Your task to perform on an android device: turn pop-ups on in chrome Image 0: 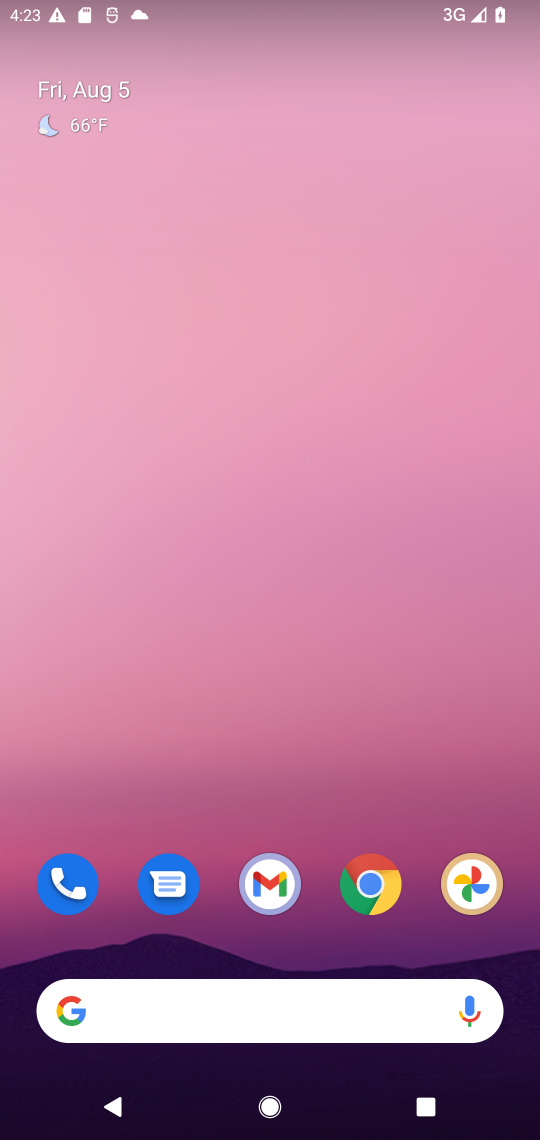
Step 0: drag from (442, 949) to (293, 18)
Your task to perform on an android device: turn pop-ups on in chrome Image 1: 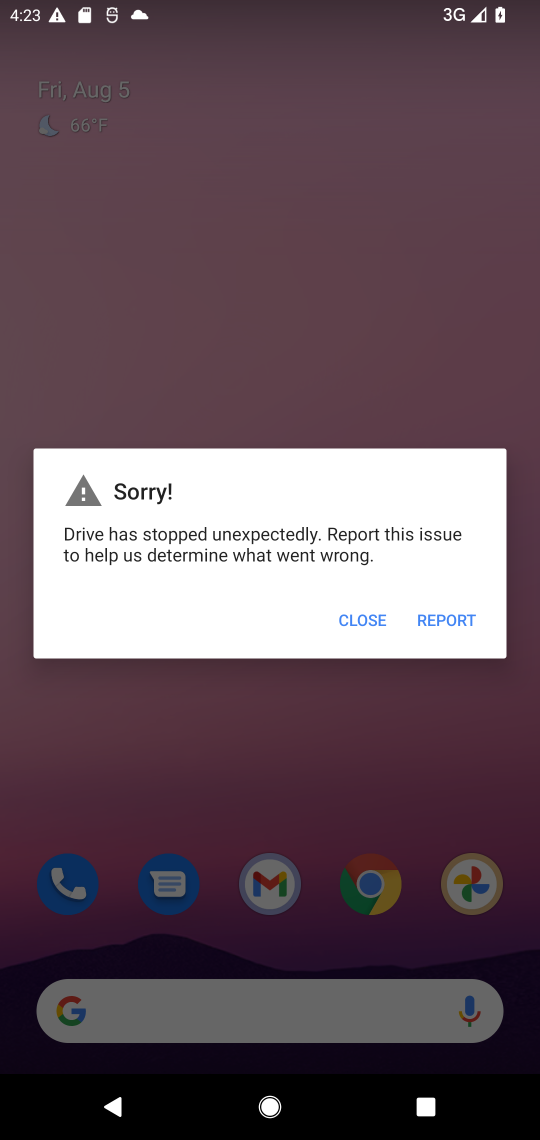
Step 1: click (340, 632)
Your task to perform on an android device: turn pop-ups on in chrome Image 2: 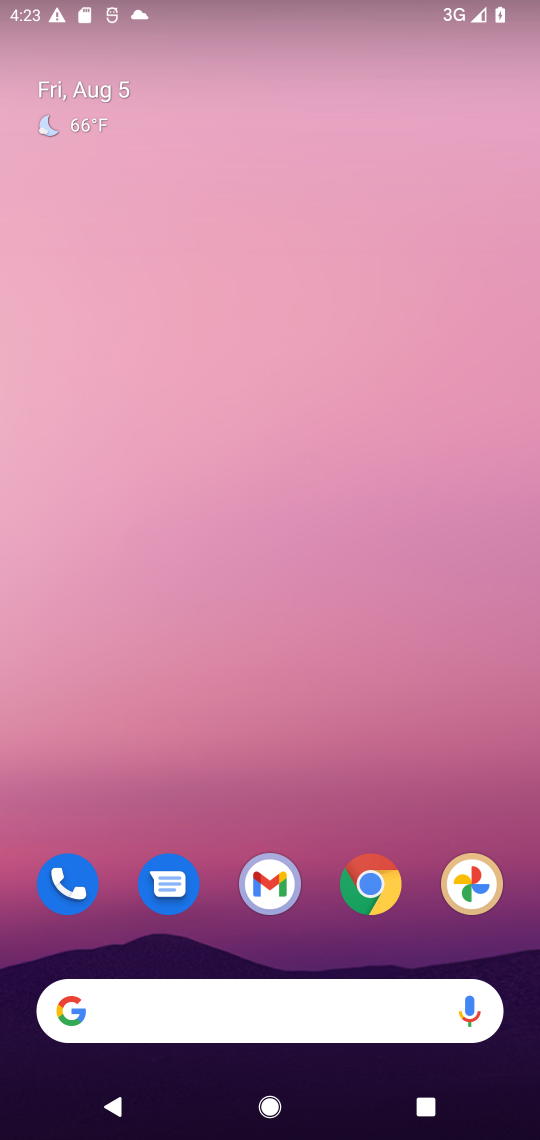
Step 2: drag from (420, 942) to (359, 115)
Your task to perform on an android device: turn pop-ups on in chrome Image 3: 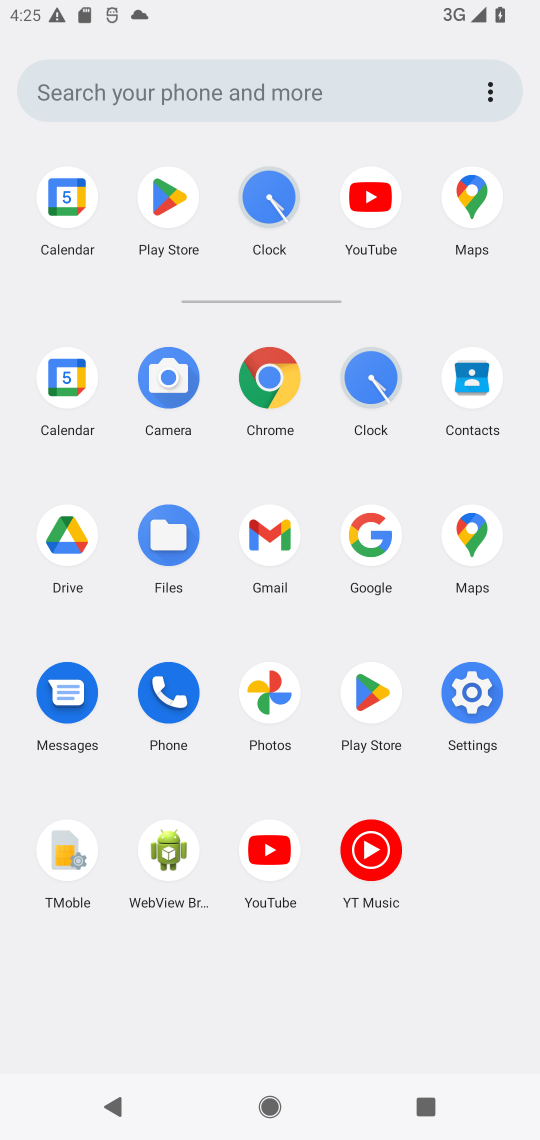
Step 3: click (272, 397)
Your task to perform on an android device: turn pop-ups on in chrome Image 4: 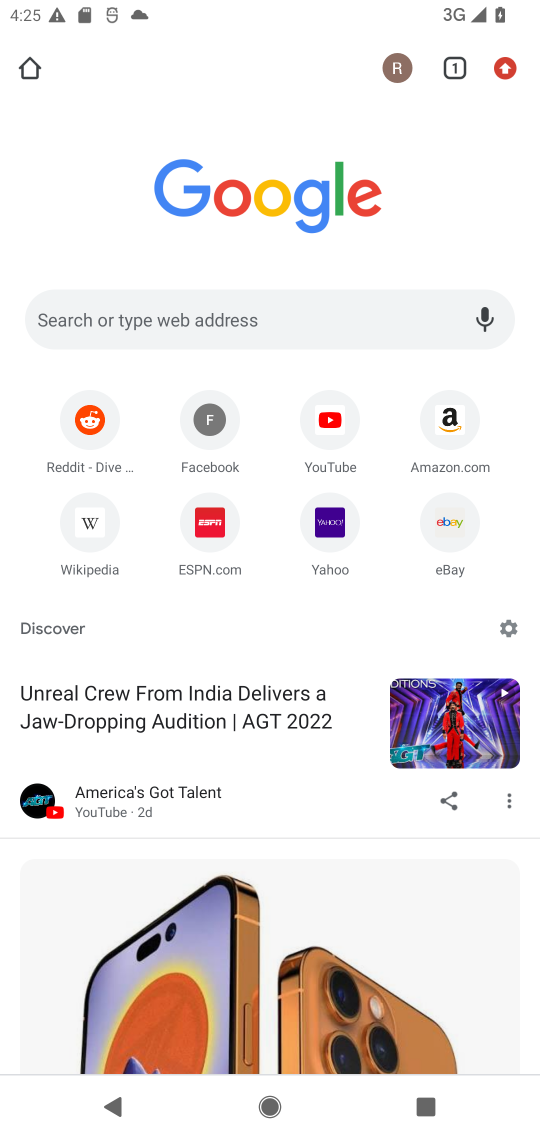
Step 4: click (502, 66)
Your task to perform on an android device: turn pop-ups on in chrome Image 5: 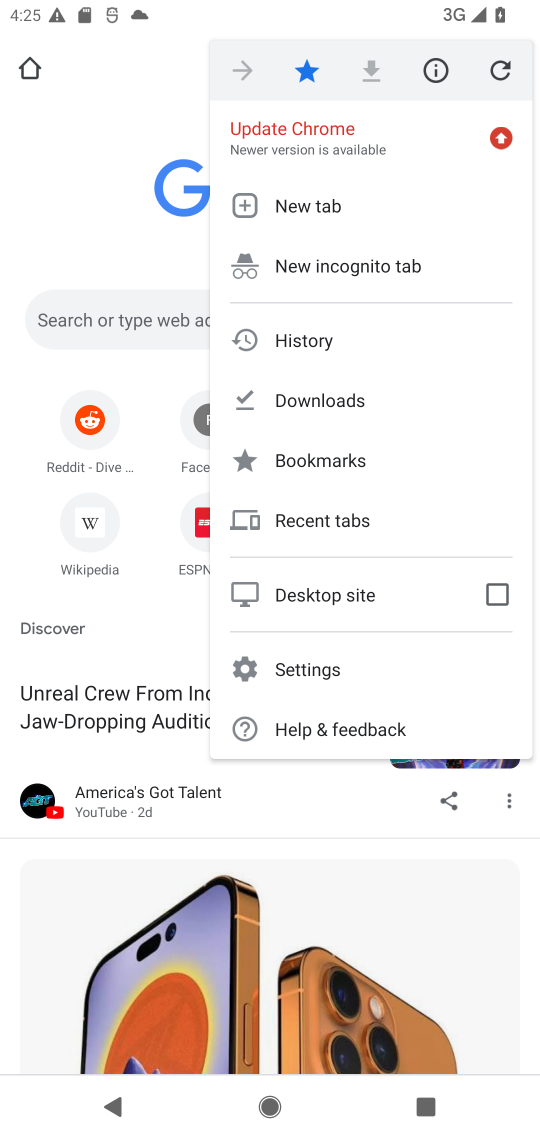
Step 5: click (304, 660)
Your task to perform on an android device: turn pop-ups on in chrome Image 6: 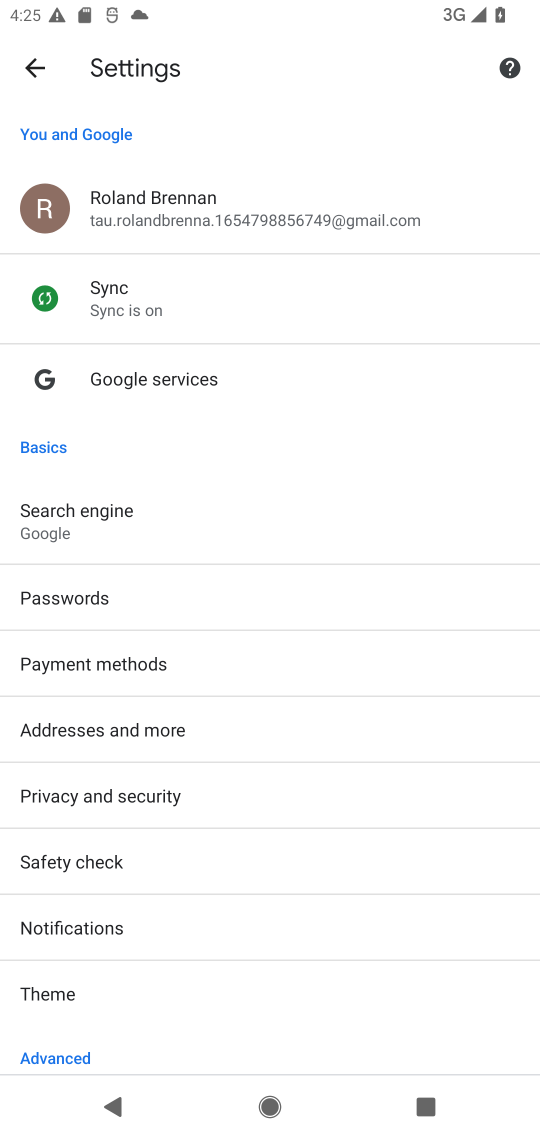
Step 6: drag from (199, 1028) to (274, 252)
Your task to perform on an android device: turn pop-ups on in chrome Image 7: 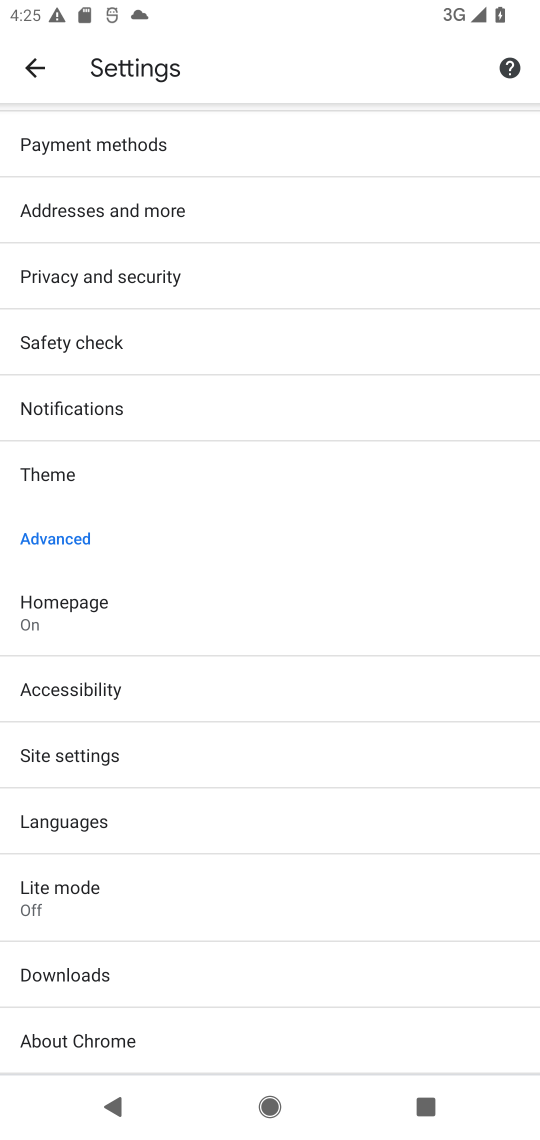
Step 7: click (85, 763)
Your task to perform on an android device: turn pop-ups on in chrome Image 8: 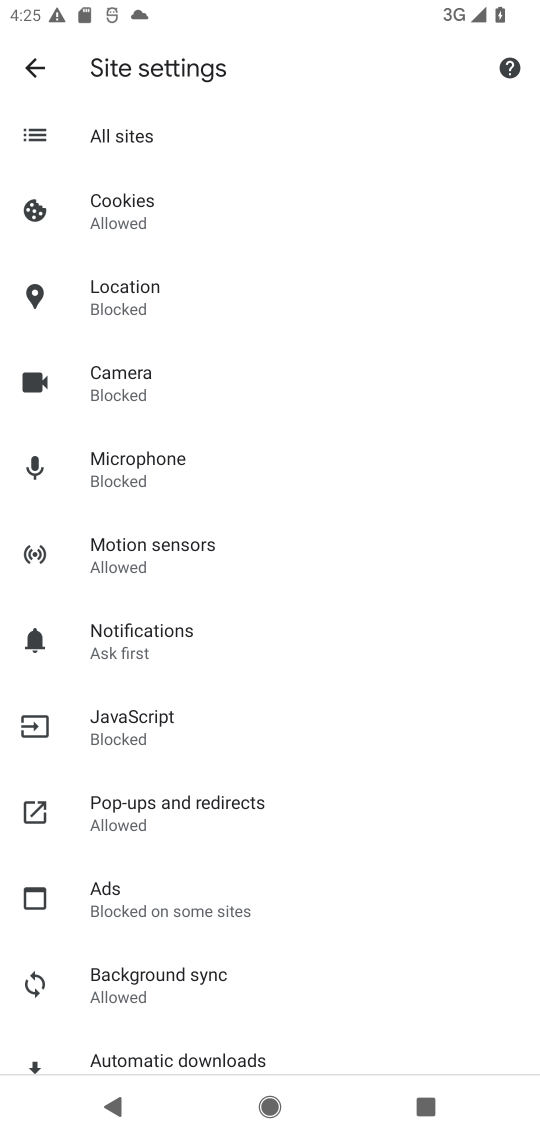
Step 8: click (135, 826)
Your task to perform on an android device: turn pop-ups on in chrome Image 9: 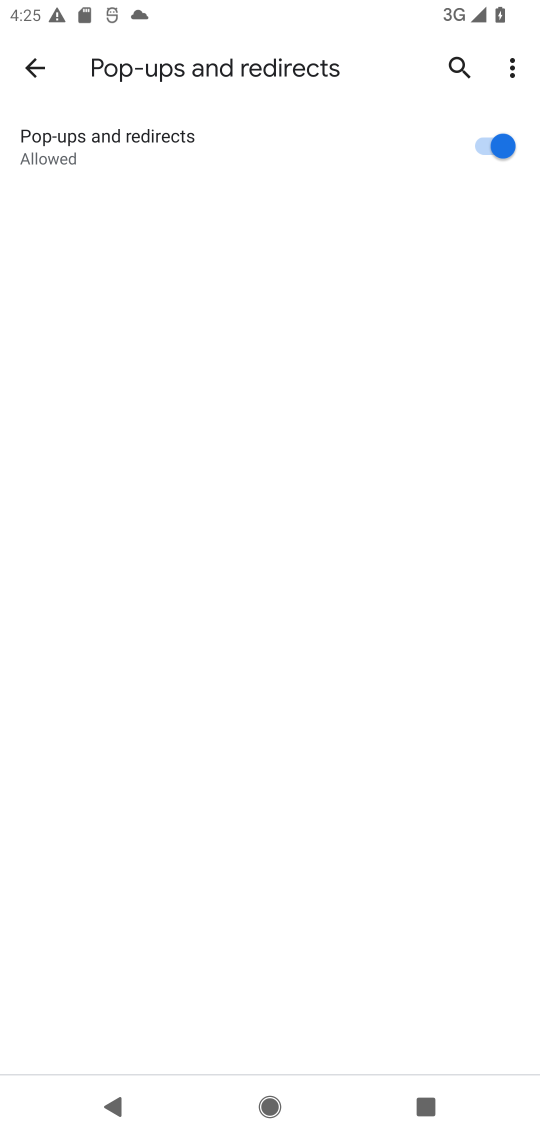
Step 9: task complete